Your task to perform on an android device: see tabs open on other devices in the chrome app Image 0: 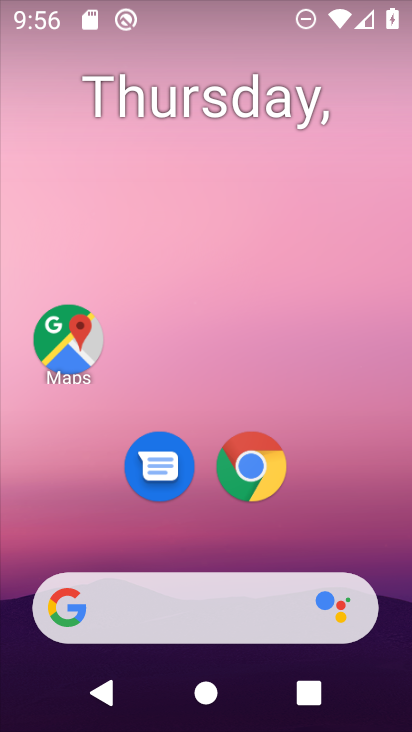
Step 0: drag from (321, 603) to (226, 33)
Your task to perform on an android device: see tabs open on other devices in the chrome app Image 1: 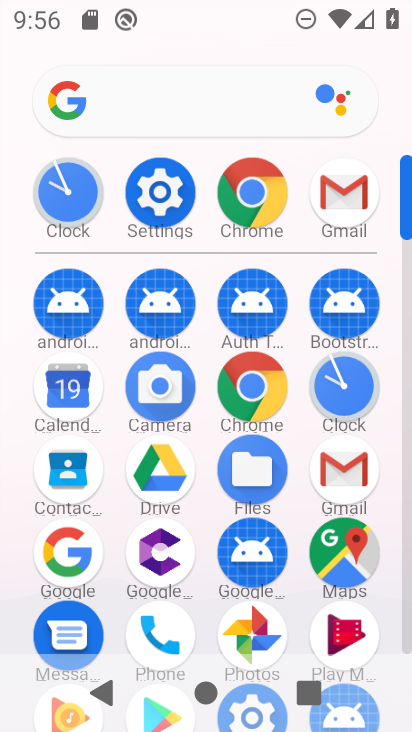
Step 1: click (263, 385)
Your task to perform on an android device: see tabs open on other devices in the chrome app Image 2: 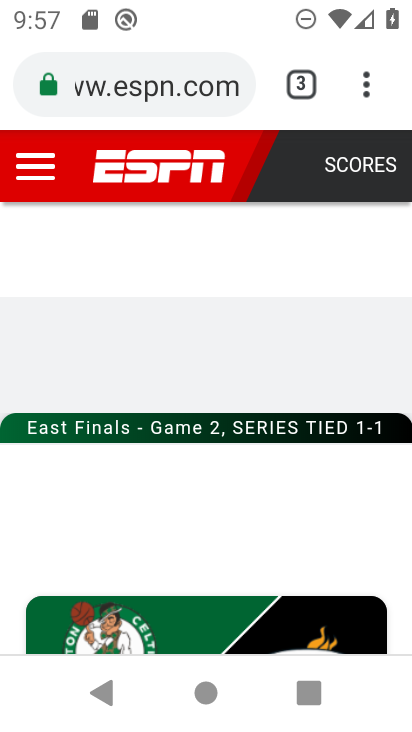
Step 2: task complete